Your task to perform on an android device: delete location history Image 0: 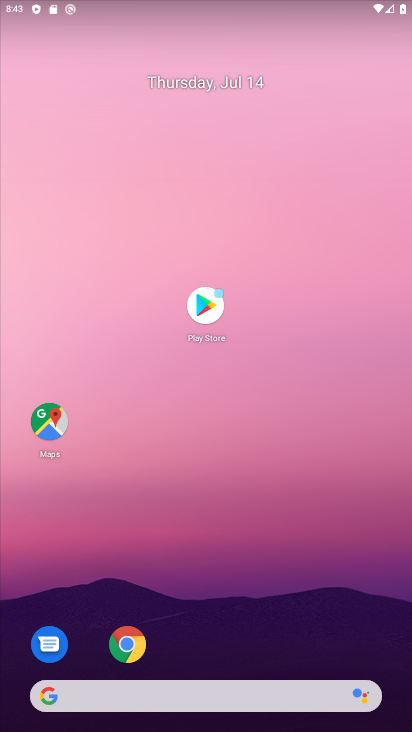
Step 0: drag from (192, 672) to (253, 92)
Your task to perform on an android device: delete location history Image 1: 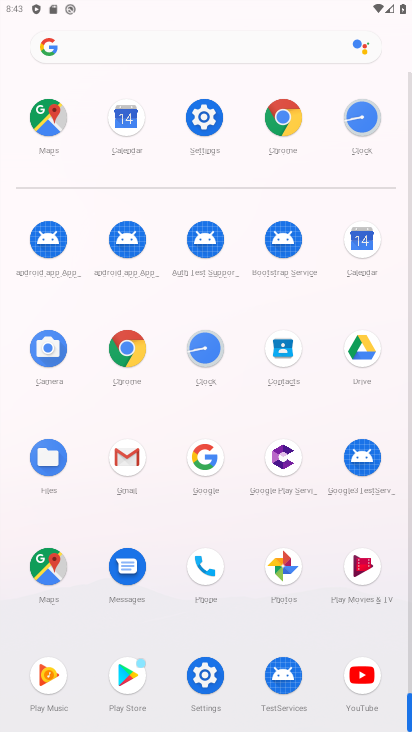
Step 1: click (199, 669)
Your task to perform on an android device: delete location history Image 2: 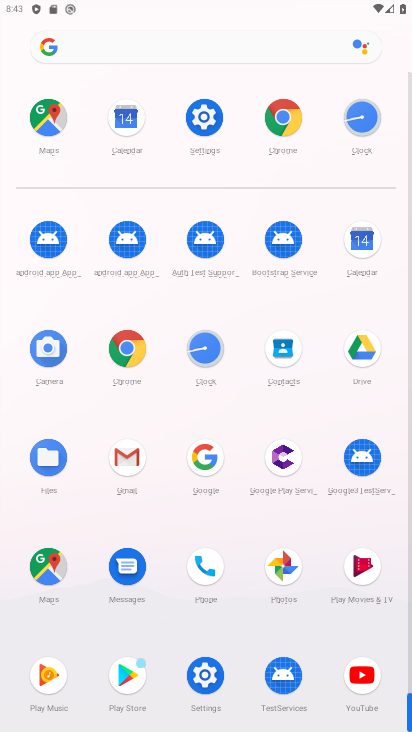
Step 2: click (199, 669)
Your task to perform on an android device: delete location history Image 3: 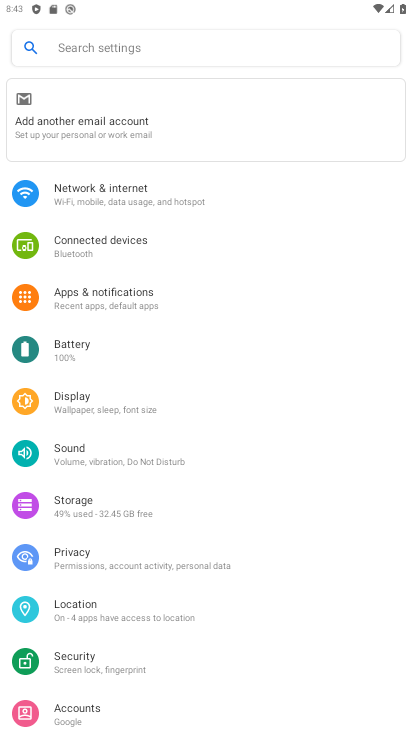
Step 3: click (106, 605)
Your task to perform on an android device: delete location history Image 4: 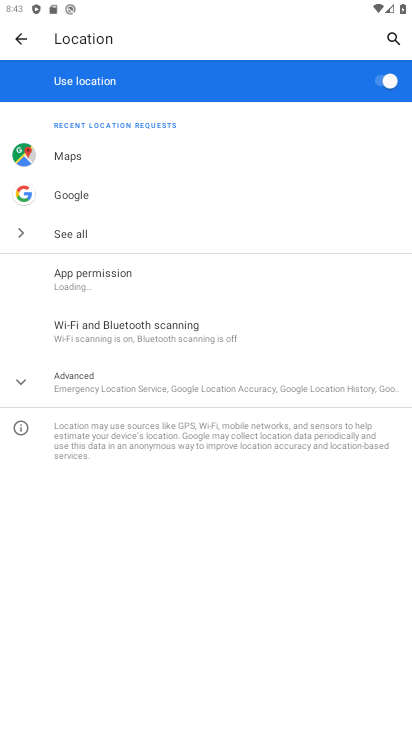
Step 4: click (148, 366)
Your task to perform on an android device: delete location history Image 5: 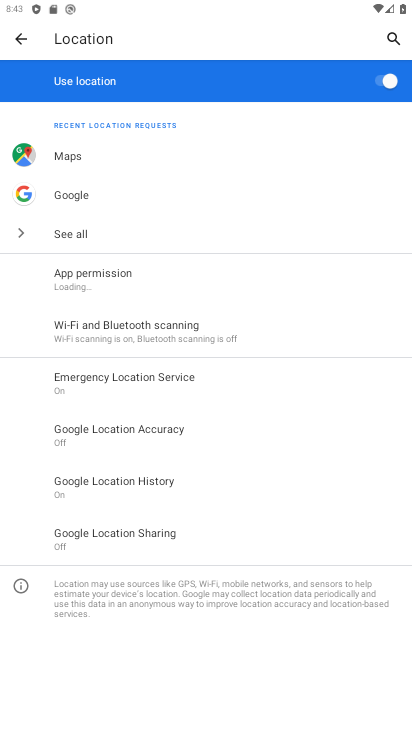
Step 5: click (161, 476)
Your task to perform on an android device: delete location history Image 6: 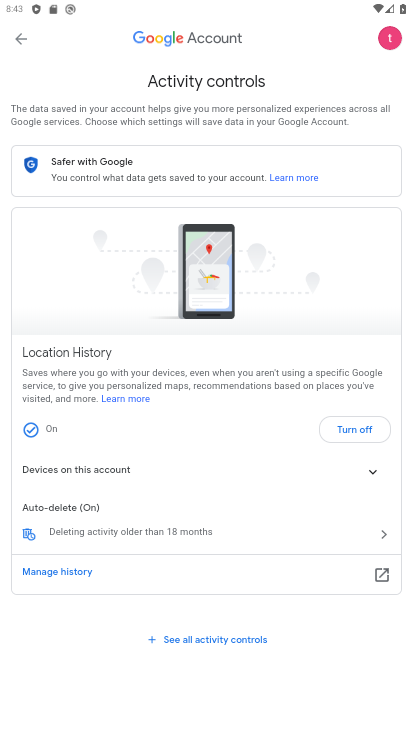
Step 6: drag from (213, 507) to (256, 242)
Your task to perform on an android device: delete location history Image 7: 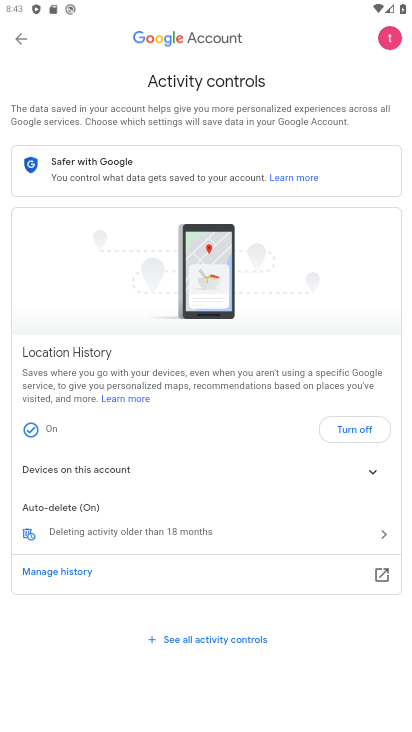
Step 7: drag from (243, 528) to (288, 306)
Your task to perform on an android device: delete location history Image 8: 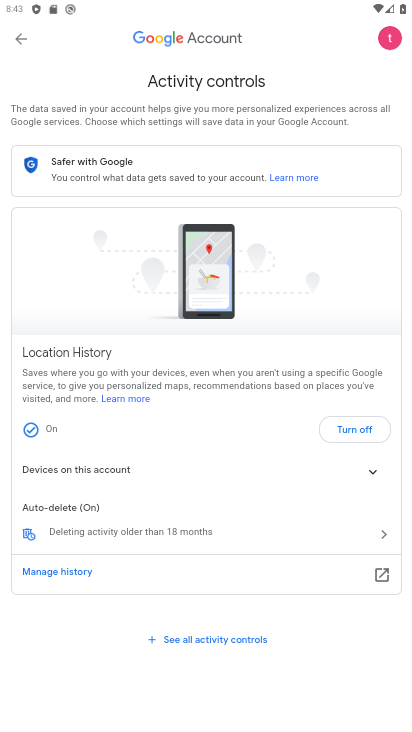
Step 8: click (43, 536)
Your task to perform on an android device: delete location history Image 9: 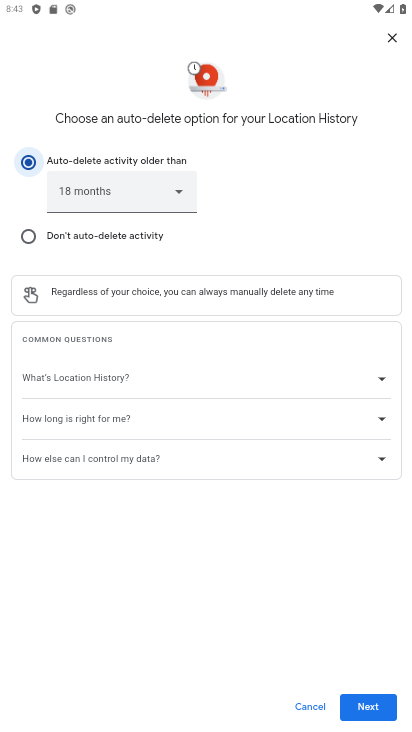
Step 9: click (371, 699)
Your task to perform on an android device: delete location history Image 10: 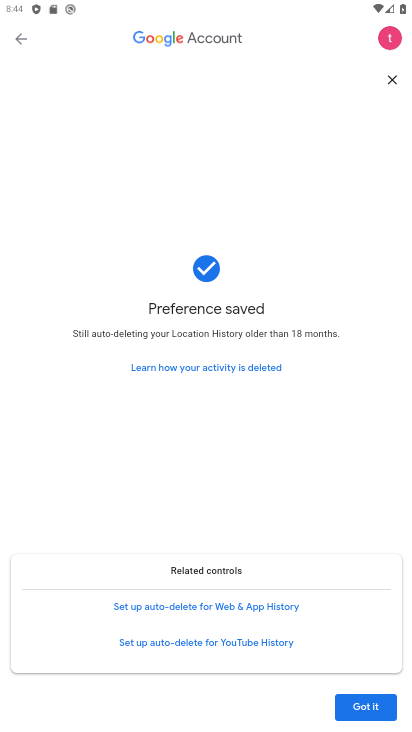
Step 10: drag from (270, 551) to (298, 387)
Your task to perform on an android device: delete location history Image 11: 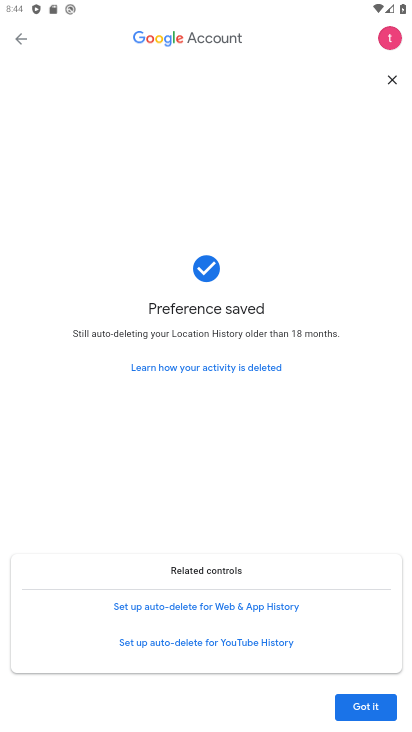
Step 11: drag from (183, 586) to (289, 301)
Your task to perform on an android device: delete location history Image 12: 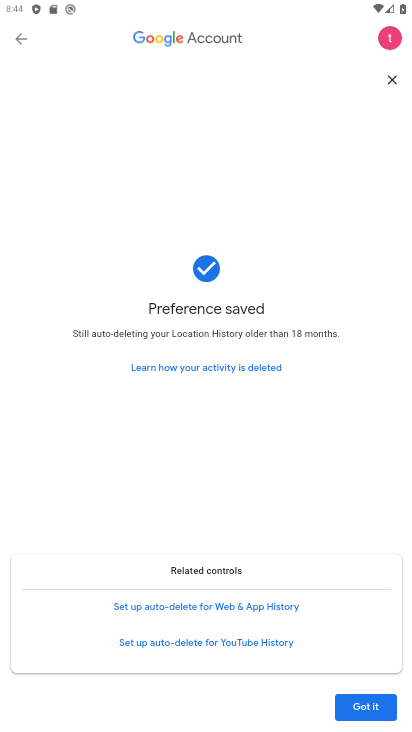
Step 12: click (352, 702)
Your task to perform on an android device: delete location history Image 13: 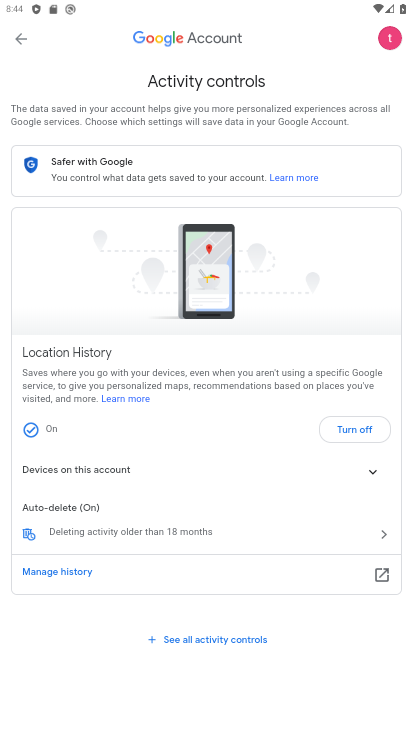
Step 13: task complete